Your task to perform on an android device: Is it going to rain today? Image 0: 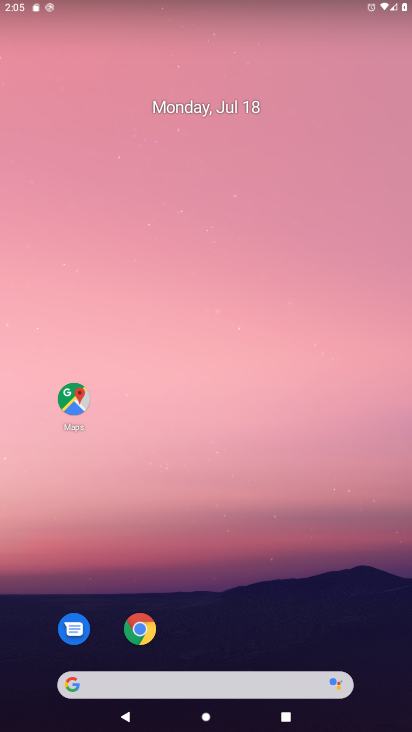
Step 0: click (147, 682)
Your task to perform on an android device: Is it going to rain today? Image 1: 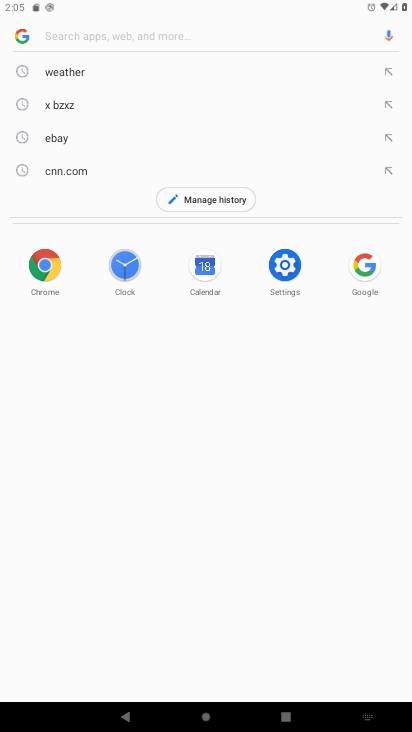
Step 1: click (54, 73)
Your task to perform on an android device: Is it going to rain today? Image 2: 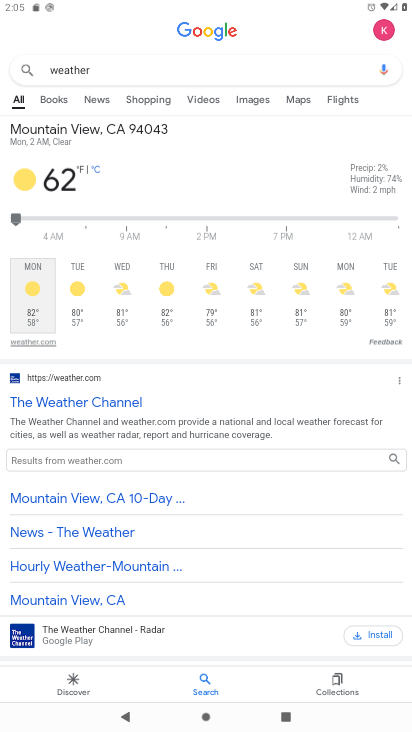
Step 2: task complete